Your task to perform on an android device: move a message to another label in the gmail app Image 0: 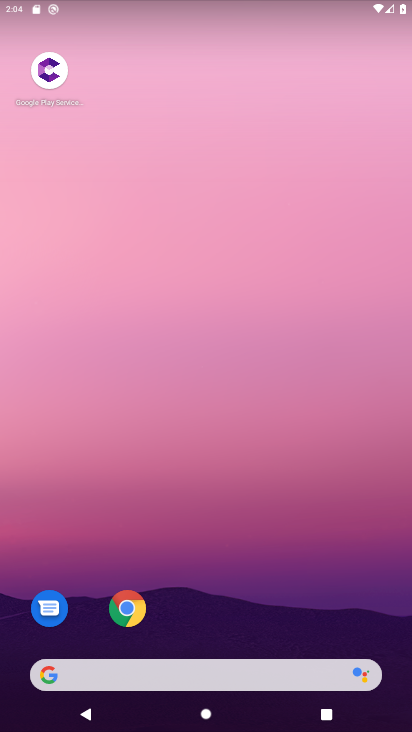
Step 0: drag from (211, 631) to (242, 72)
Your task to perform on an android device: move a message to another label in the gmail app Image 1: 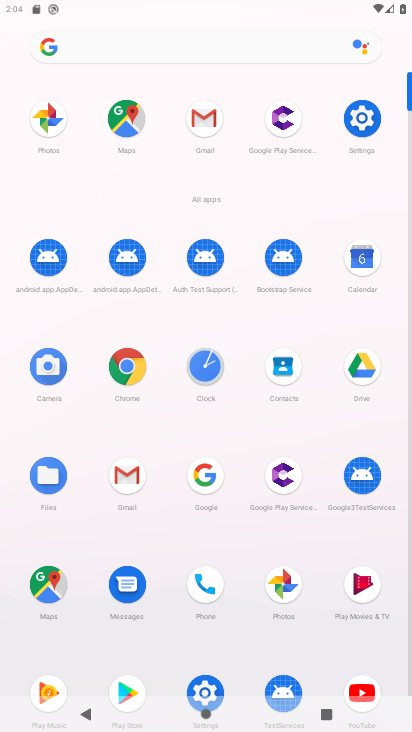
Step 1: click (140, 479)
Your task to perform on an android device: move a message to another label in the gmail app Image 2: 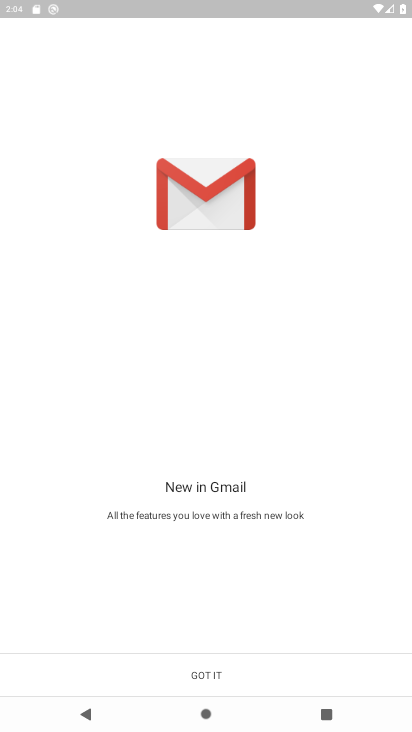
Step 2: click (202, 669)
Your task to perform on an android device: move a message to another label in the gmail app Image 3: 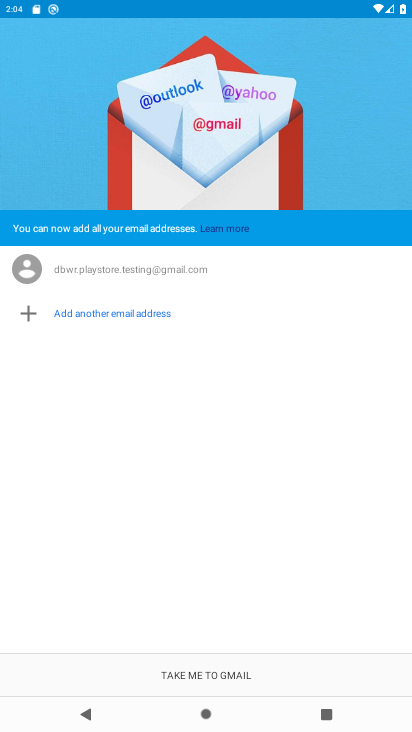
Step 3: click (202, 669)
Your task to perform on an android device: move a message to another label in the gmail app Image 4: 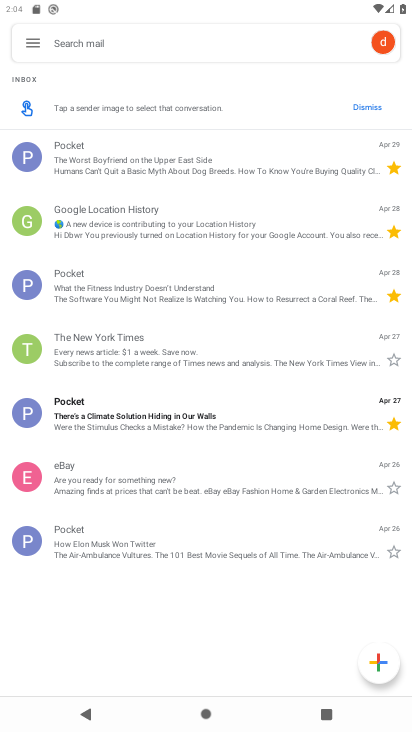
Step 4: click (34, 482)
Your task to perform on an android device: move a message to another label in the gmail app Image 5: 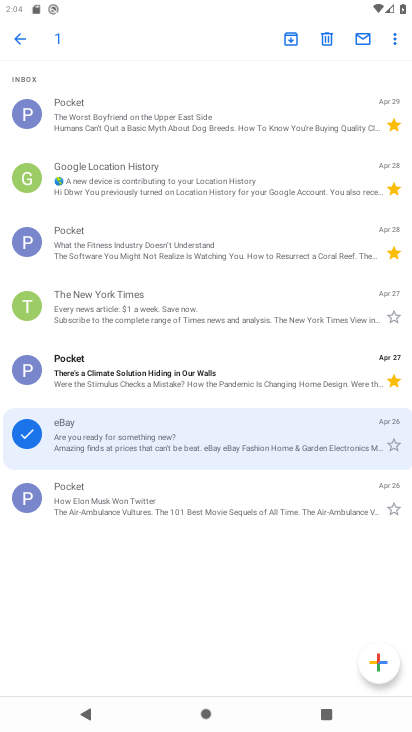
Step 5: click (392, 49)
Your task to perform on an android device: move a message to another label in the gmail app Image 6: 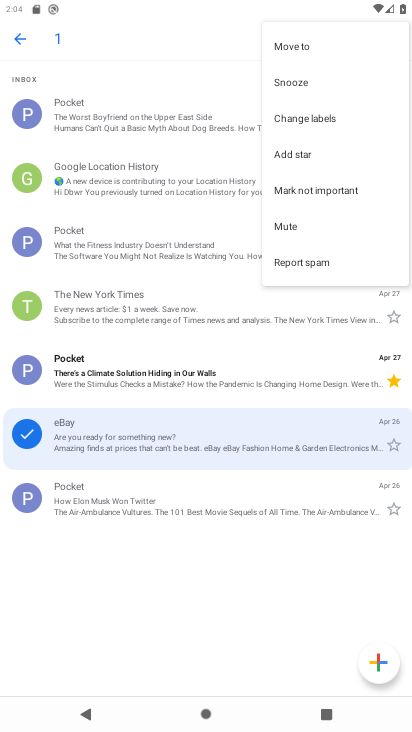
Step 6: click (324, 117)
Your task to perform on an android device: move a message to another label in the gmail app Image 7: 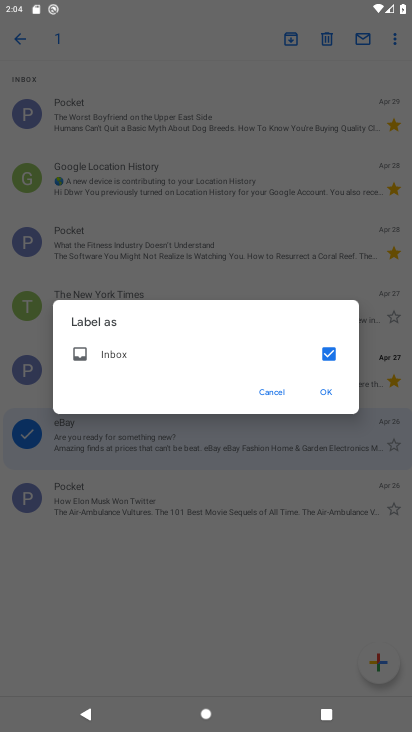
Step 7: click (324, 346)
Your task to perform on an android device: move a message to another label in the gmail app Image 8: 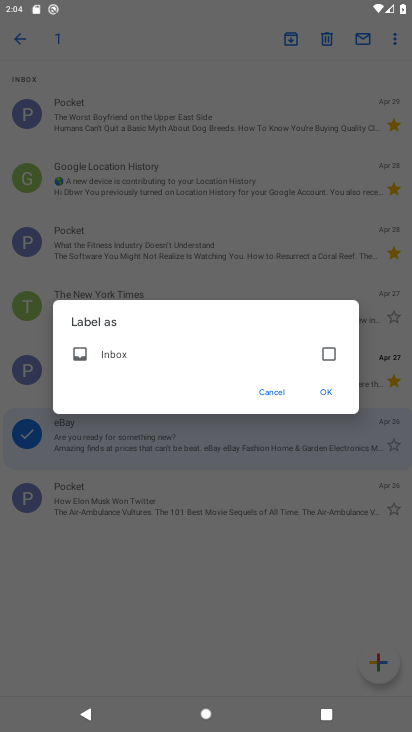
Step 8: click (332, 392)
Your task to perform on an android device: move a message to another label in the gmail app Image 9: 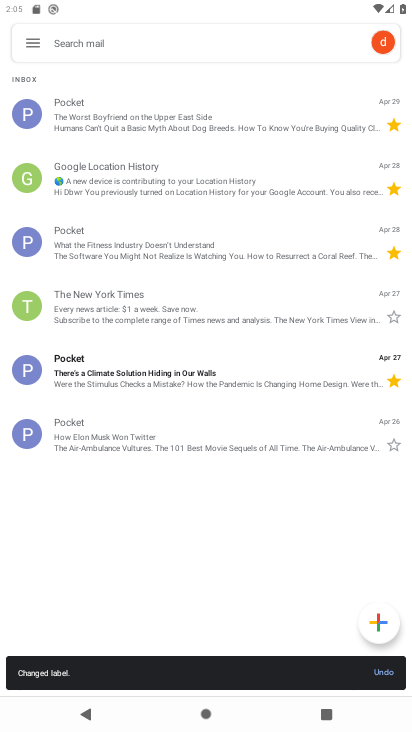
Step 9: task complete